Your task to perform on an android device: allow cookies in the chrome app Image 0: 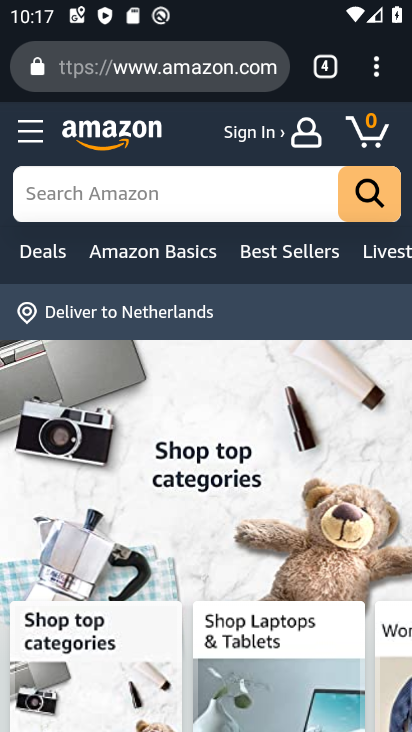
Step 0: click (376, 76)
Your task to perform on an android device: allow cookies in the chrome app Image 1: 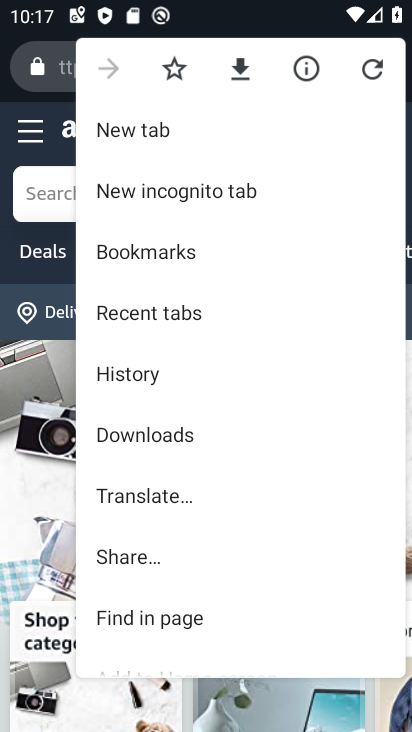
Step 1: drag from (240, 536) to (204, 177)
Your task to perform on an android device: allow cookies in the chrome app Image 2: 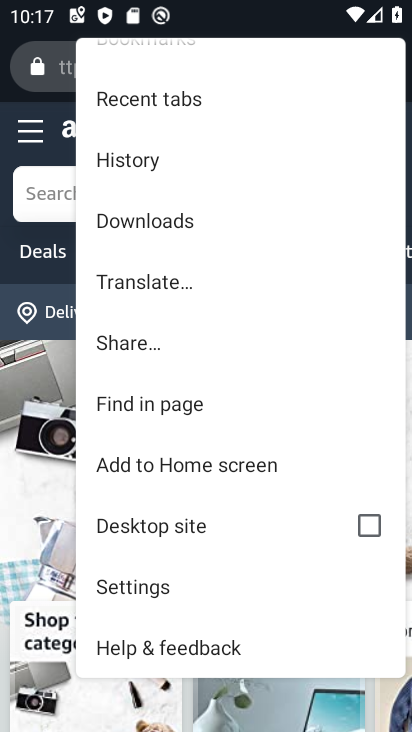
Step 2: click (148, 585)
Your task to perform on an android device: allow cookies in the chrome app Image 3: 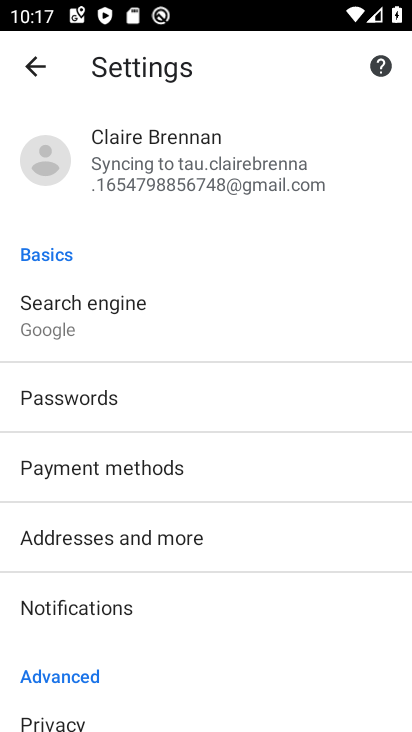
Step 3: drag from (231, 612) to (282, 197)
Your task to perform on an android device: allow cookies in the chrome app Image 4: 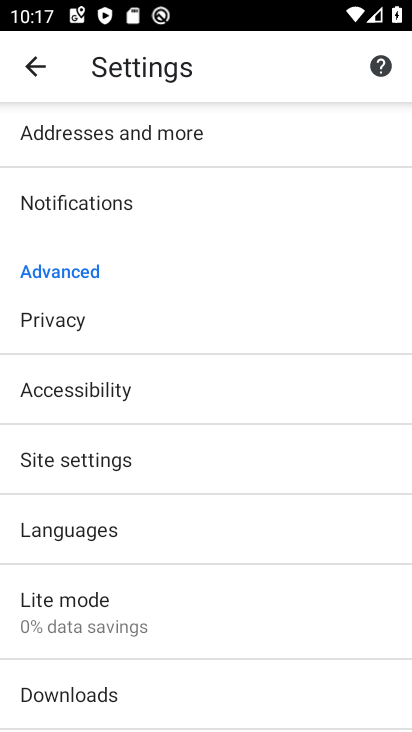
Step 4: click (125, 451)
Your task to perform on an android device: allow cookies in the chrome app Image 5: 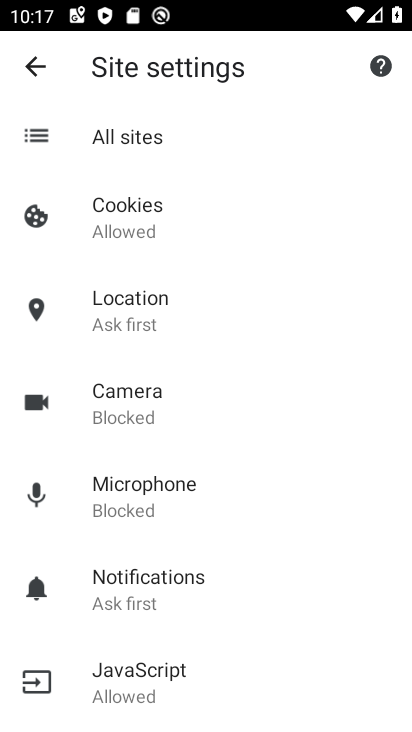
Step 5: click (140, 212)
Your task to perform on an android device: allow cookies in the chrome app Image 6: 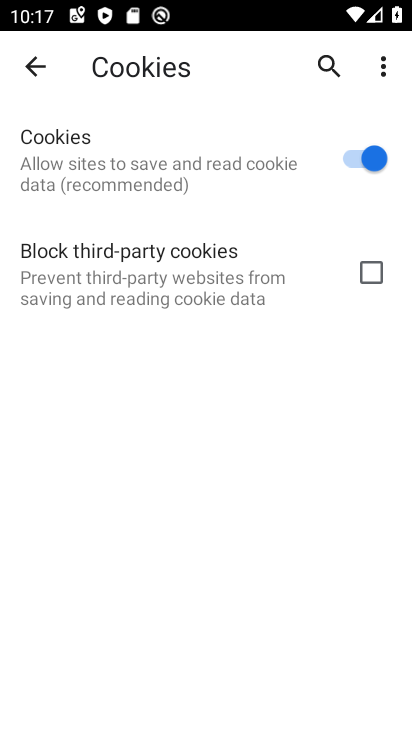
Step 6: task complete